Your task to perform on an android device: open a bookmark in the chrome app Image 0: 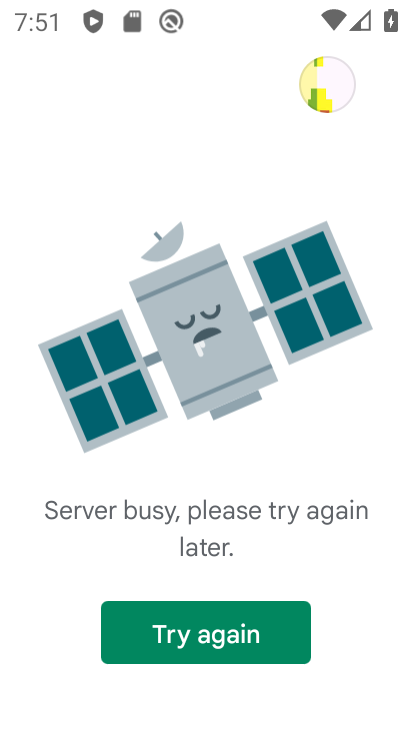
Step 0: press home button
Your task to perform on an android device: open a bookmark in the chrome app Image 1: 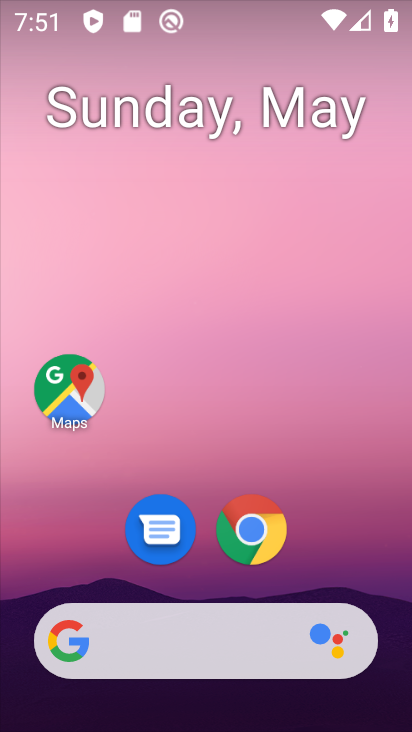
Step 1: click (251, 533)
Your task to perform on an android device: open a bookmark in the chrome app Image 2: 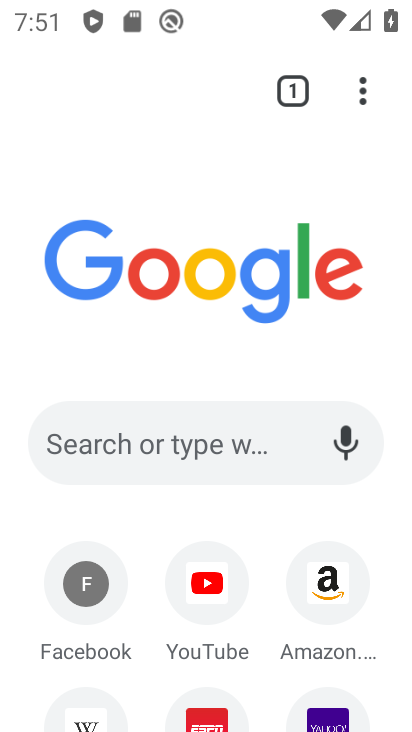
Step 2: drag from (363, 88) to (131, 348)
Your task to perform on an android device: open a bookmark in the chrome app Image 3: 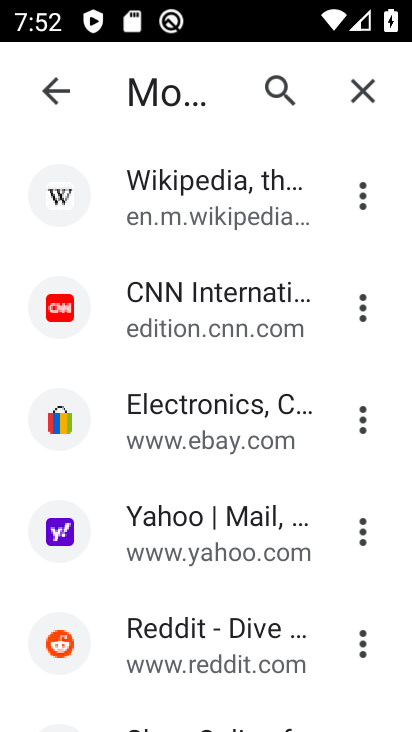
Step 3: click (193, 305)
Your task to perform on an android device: open a bookmark in the chrome app Image 4: 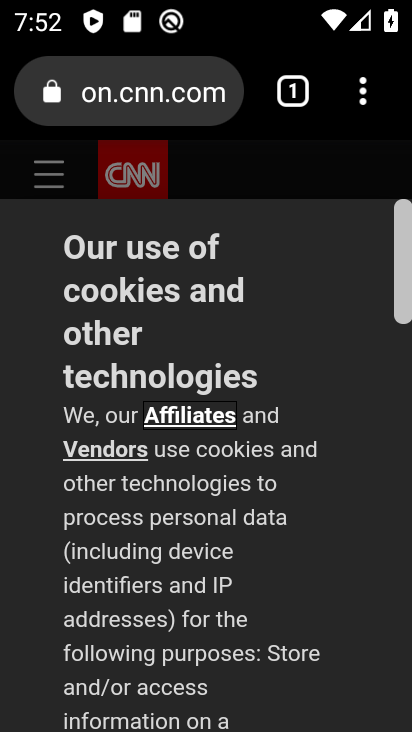
Step 4: task complete